Your task to perform on an android device: open chrome and create a bookmark for the current page Image 0: 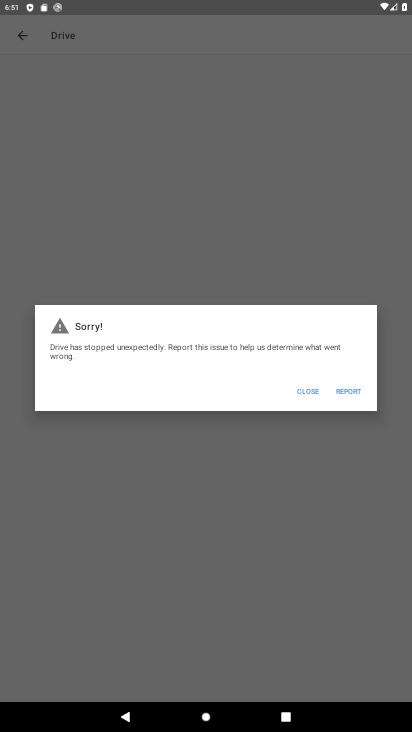
Step 0: press home button
Your task to perform on an android device: open chrome and create a bookmark for the current page Image 1: 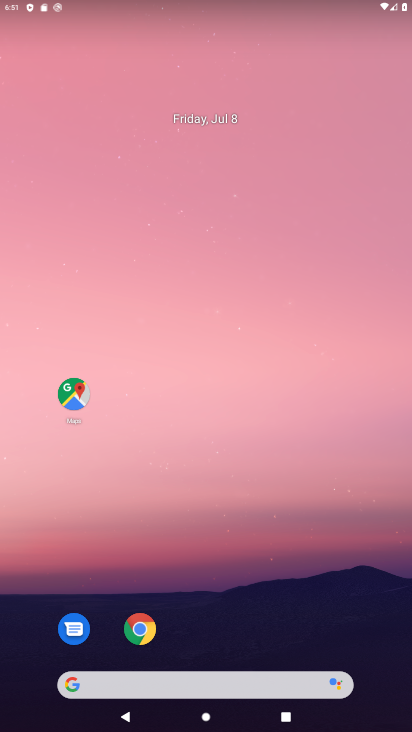
Step 1: drag from (300, 641) to (230, 147)
Your task to perform on an android device: open chrome and create a bookmark for the current page Image 2: 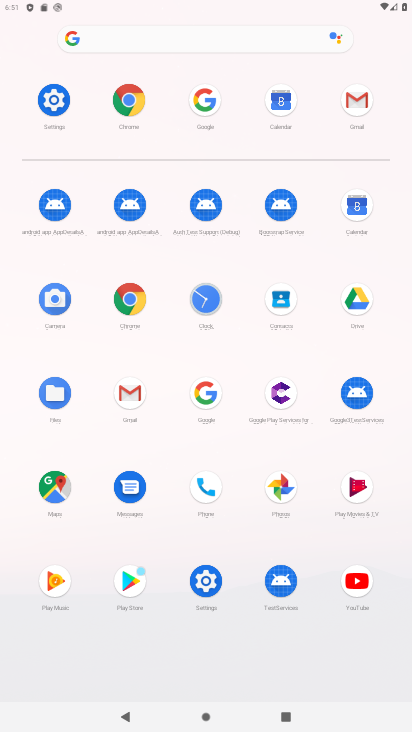
Step 2: click (143, 278)
Your task to perform on an android device: open chrome and create a bookmark for the current page Image 3: 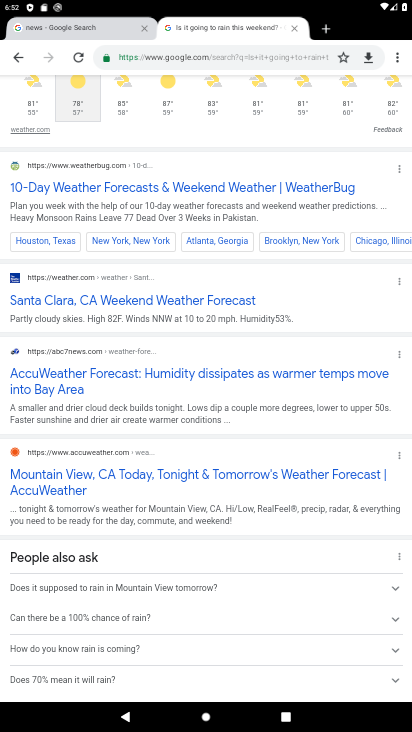
Step 3: click (345, 61)
Your task to perform on an android device: open chrome and create a bookmark for the current page Image 4: 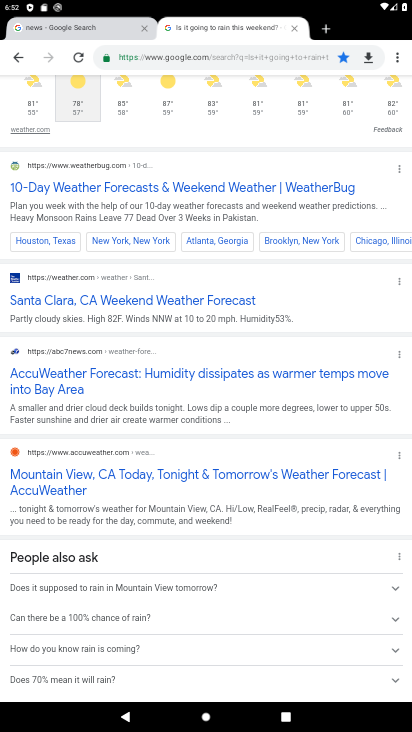
Step 4: task complete